Your task to perform on an android device: Open Google Chrome and open the bookmarks view Image 0: 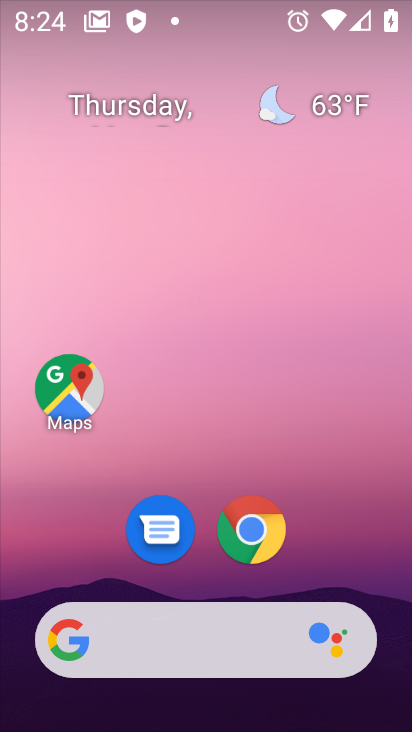
Step 0: click (242, 526)
Your task to perform on an android device: Open Google Chrome and open the bookmarks view Image 1: 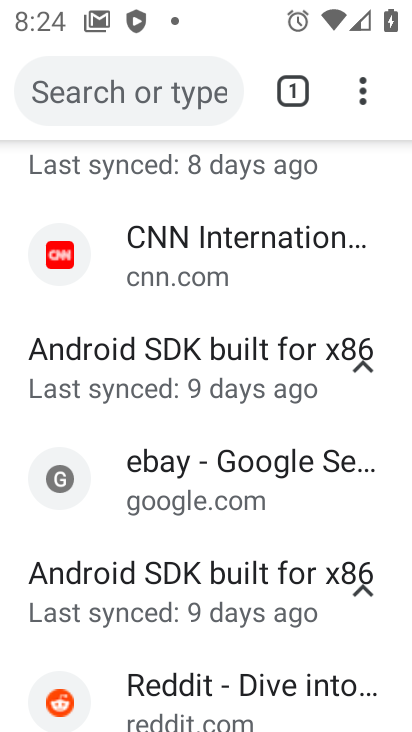
Step 1: click (353, 72)
Your task to perform on an android device: Open Google Chrome and open the bookmarks view Image 2: 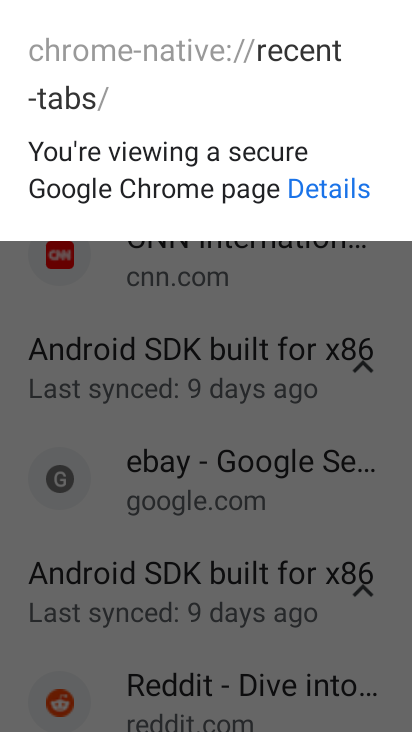
Step 2: click (345, 397)
Your task to perform on an android device: Open Google Chrome and open the bookmarks view Image 3: 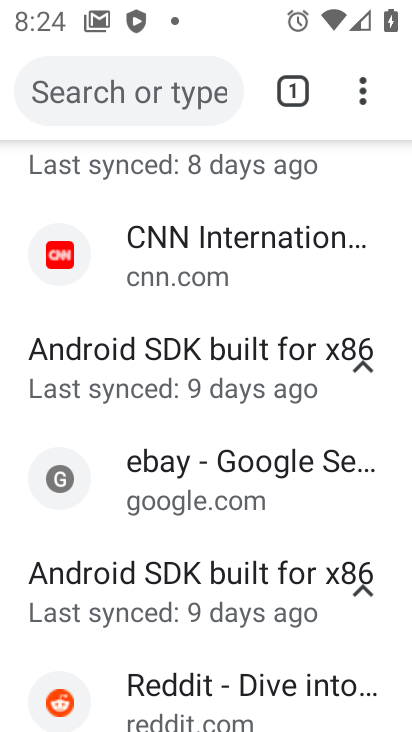
Step 3: task complete